Your task to perform on an android device: change timer sound Image 0: 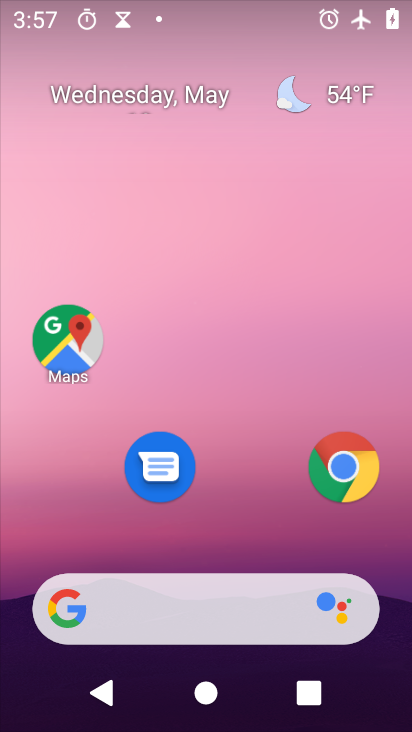
Step 0: drag from (227, 559) to (134, 100)
Your task to perform on an android device: change timer sound Image 1: 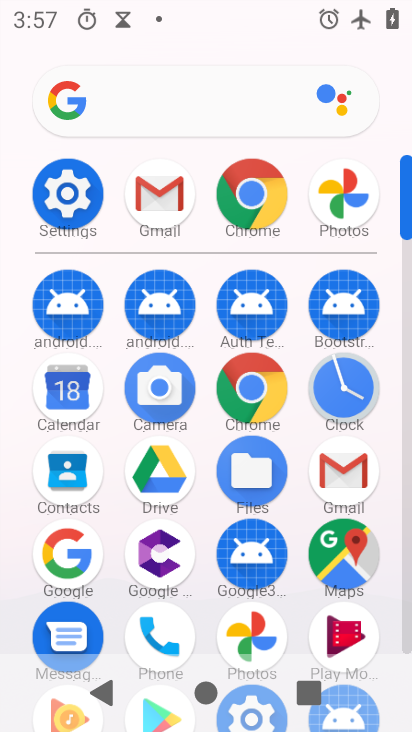
Step 1: click (365, 377)
Your task to perform on an android device: change timer sound Image 2: 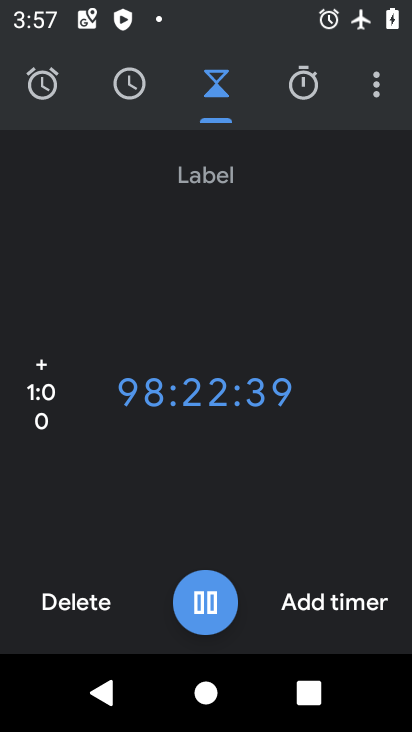
Step 2: click (380, 84)
Your task to perform on an android device: change timer sound Image 3: 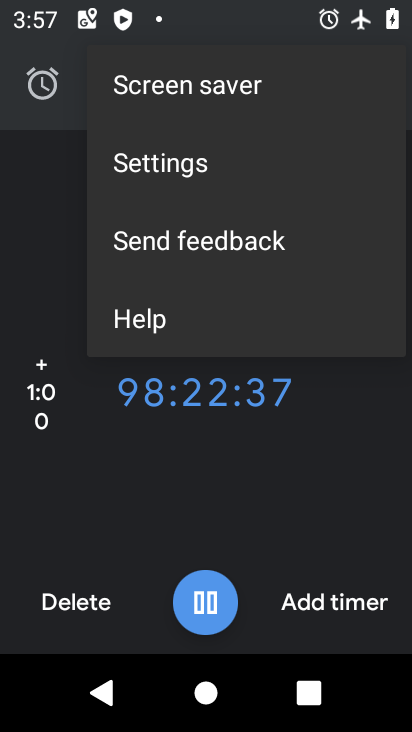
Step 3: click (294, 168)
Your task to perform on an android device: change timer sound Image 4: 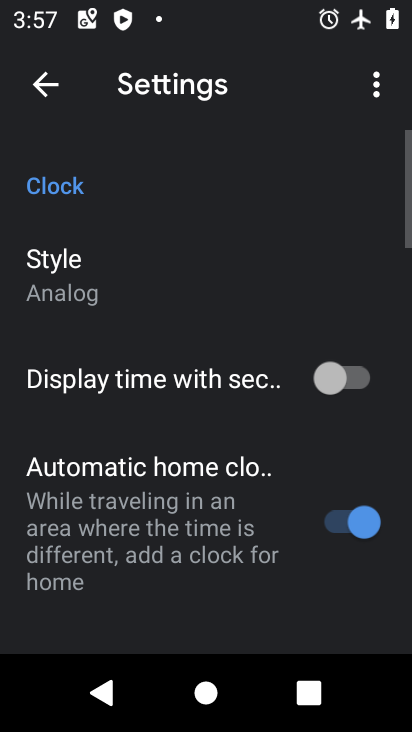
Step 4: drag from (235, 557) to (210, 171)
Your task to perform on an android device: change timer sound Image 5: 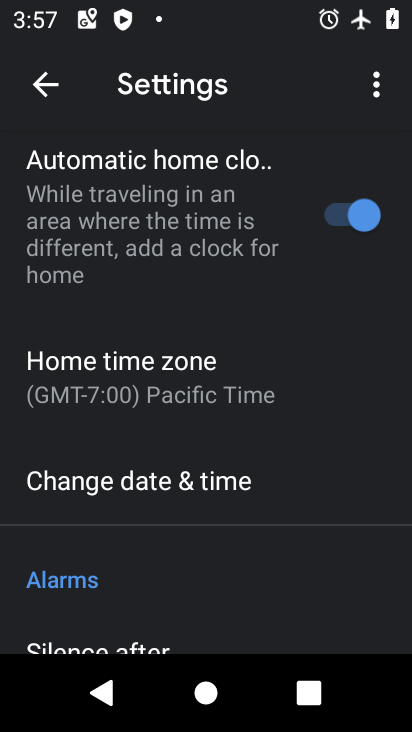
Step 5: drag from (294, 583) to (259, 135)
Your task to perform on an android device: change timer sound Image 6: 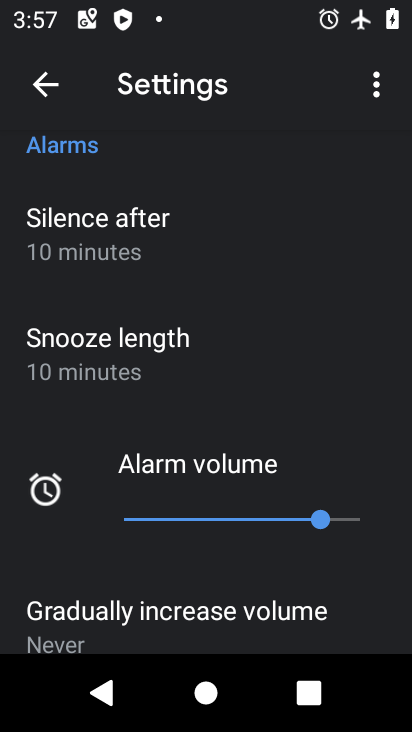
Step 6: drag from (300, 559) to (247, 236)
Your task to perform on an android device: change timer sound Image 7: 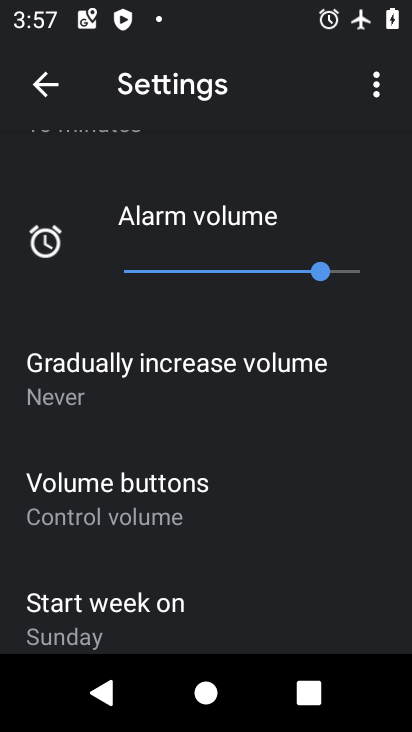
Step 7: drag from (236, 490) to (215, 98)
Your task to perform on an android device: change timer sound Image 8: 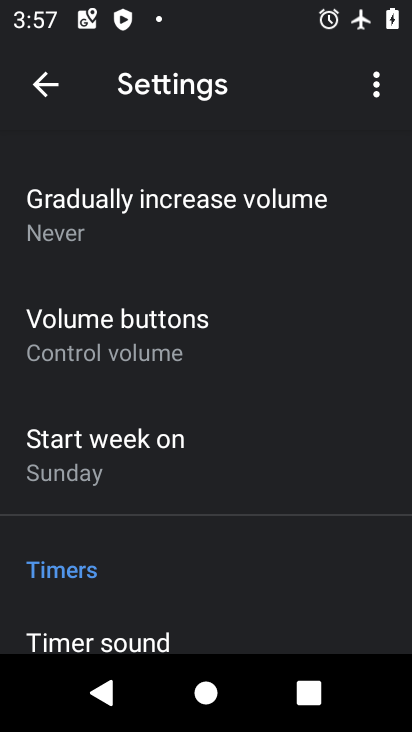
Step 8: drag from (257, 566) to (211, 222)
Your task to perform on an android device: change timer sound Image 9: 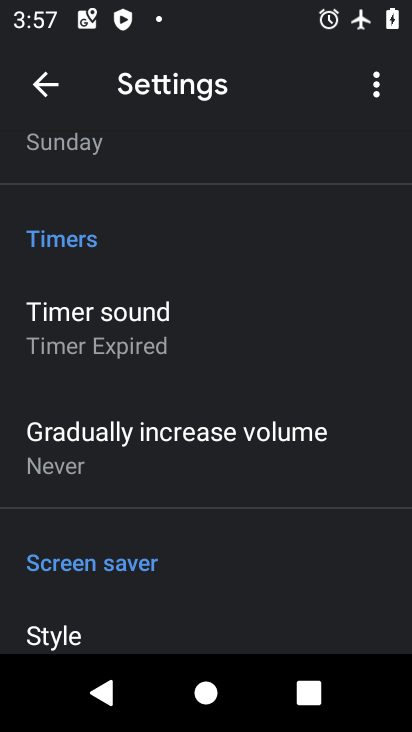
Step 9: click (223, 343)
Your task to perform on an android device: change timer sound Image 10: 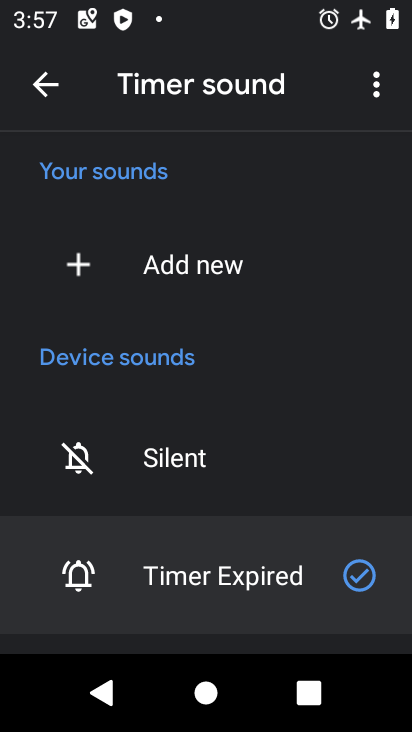
Step 10: drag from (244, 564) to (212, 288)
Your task to perform on an android device: change timer sound Image 11: 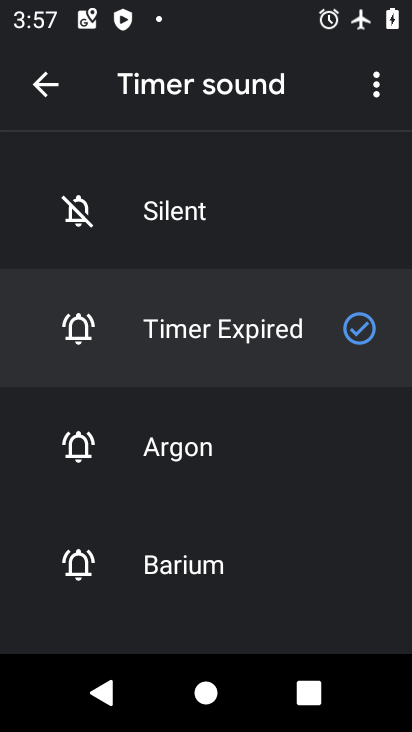
Step 11: click (221, 446)
Your task to perform on an android device: change timer sound Image 12: 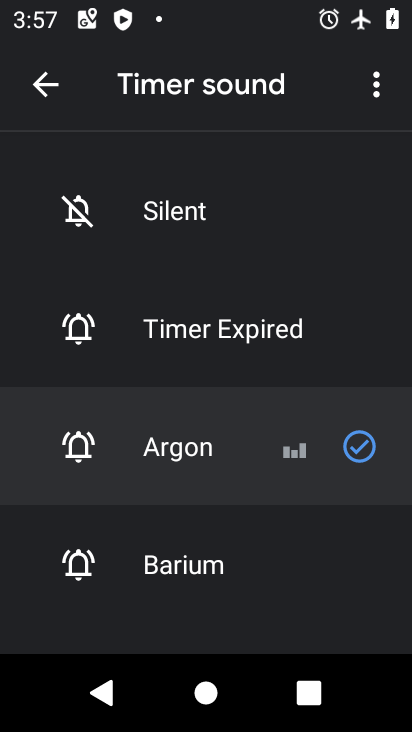
Step 12: task complete